Your task to perform on an android device: turn off smart reply in the gmail app Image 0: 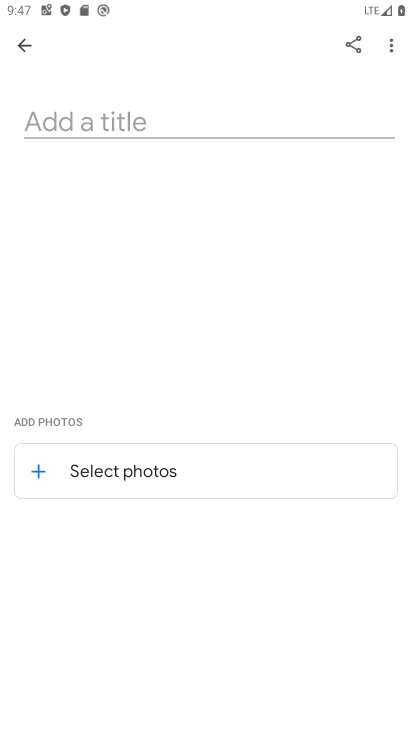
Step 0: press home button
Your task to perform on an android device: turn off smart reply in the gmail app Image 1: 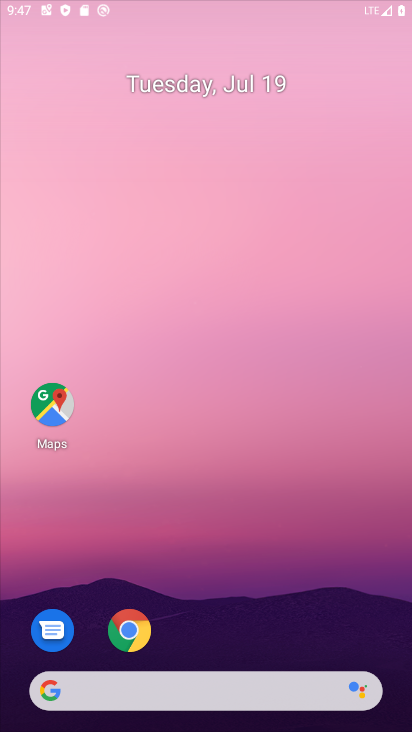
Step 1: drag from (202, 643) to (222, 50)
Your task to perform on an android device: turn off smart reply in the gmail app Image 2: 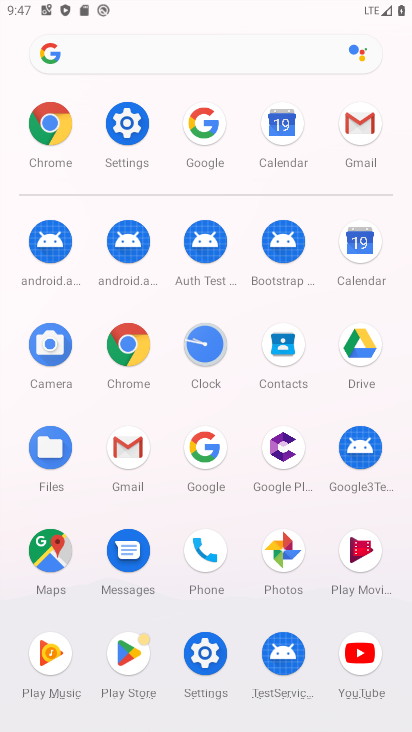
Step 2: click (361, 120)
Your task to perform on an android device: turn off smart reply in the gmail app Image 3: 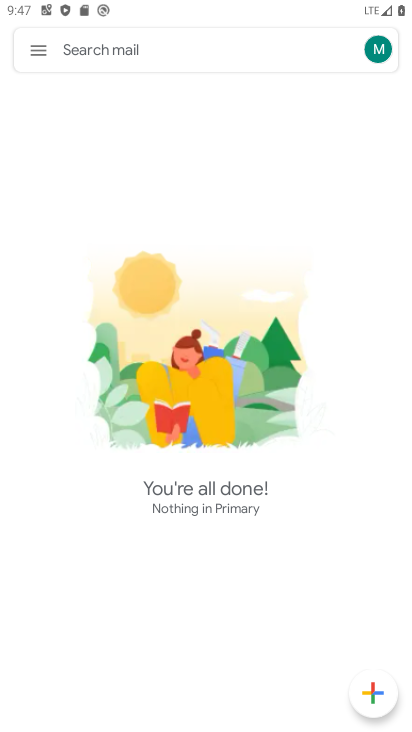
Step 3: click (38, 49)
Your task to perform on an android device: turn off smart reply in the gmail app Image 4: 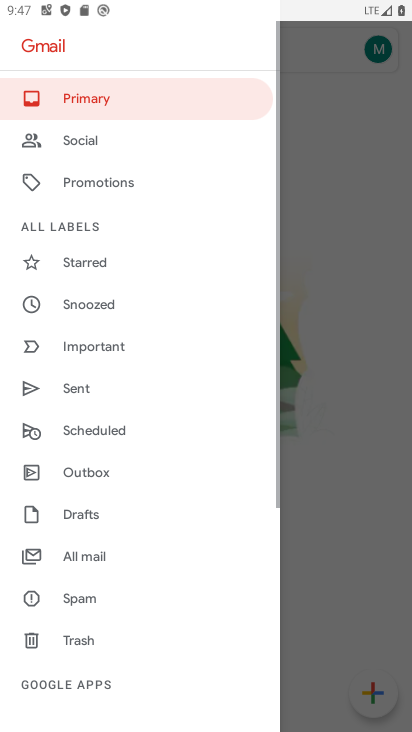
Step 4: drag from (92, 688) to (109, 250)
Your task to perform on an android device: turn off smart reply in the gmail app Image 5: 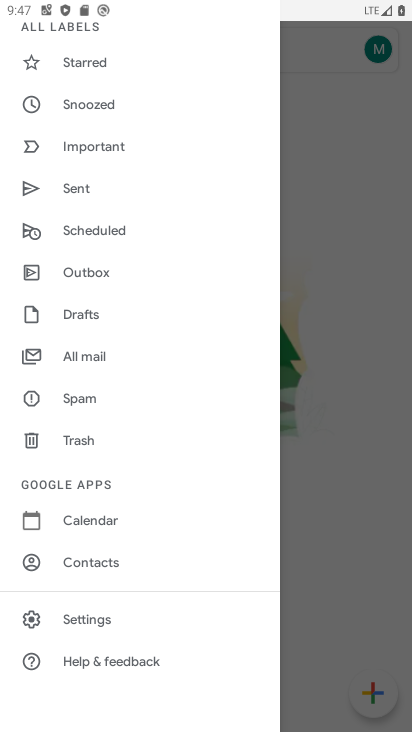
Step 5: click (77, 614)
Your task to perform on an android device: turn off smart reply in the gmail app Image 6: 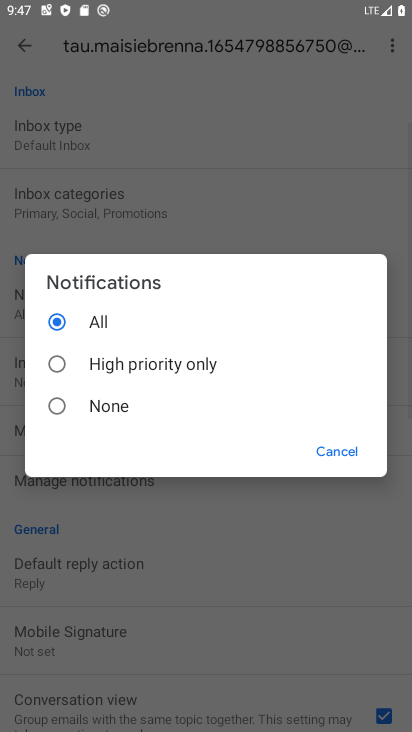
Step 6: click (329, 447)
Your task to perform on an android device: turn off smart reply in the gmail app Image 7: 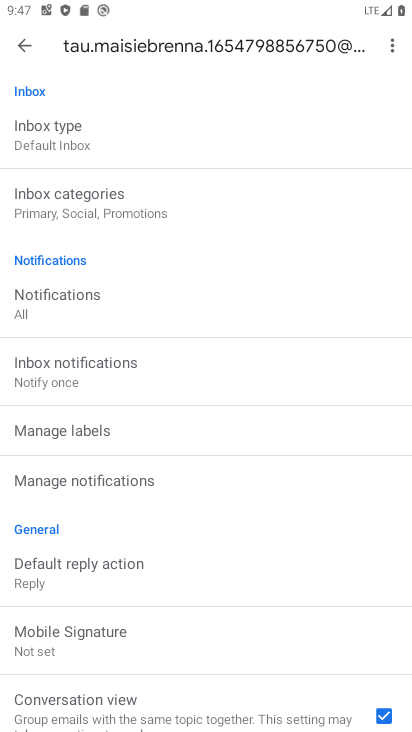
Step 7: drag from (240, 634) to (210, 162)
Your task to perform on an android device: turn off smart reply in the gmail app Image 8: 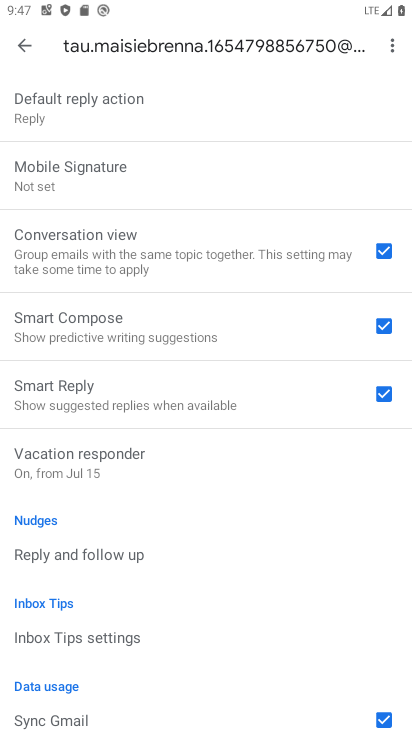
Step 8: click (382, 395)
Your task to perform on an android device: turn off smart reply in the gmail app Image 9: 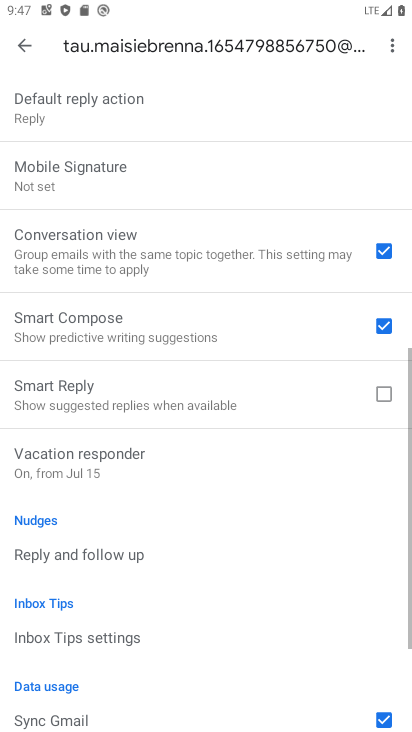
Step 9: task complete